Your task to perform on an android device: View the shopping cart on bestbuy.com. Image 0: 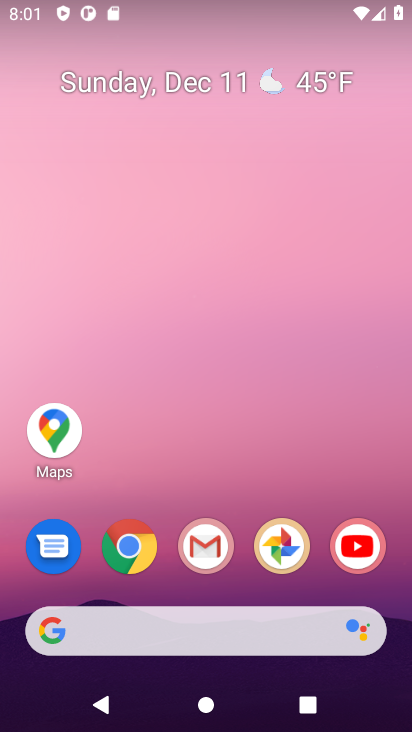
Step 0: click (136, 546)
Your task to perform on an android device: View the shopping cart on bestbuy.com. Image 1: 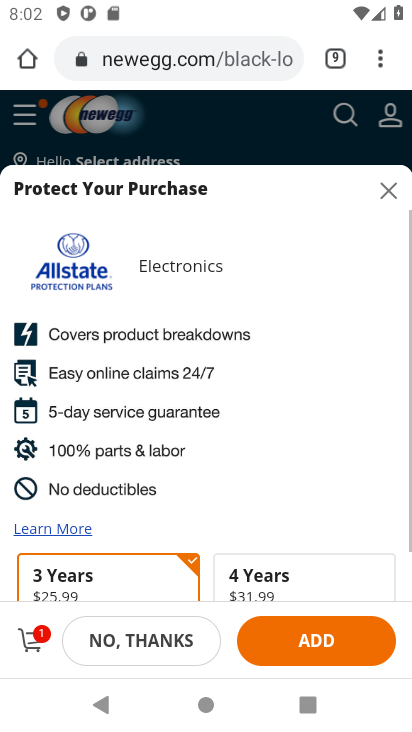
Step 1: click (158, 61)
Your task to perform on an android device: View the shopping cart on bestbuy.com. Image 2: 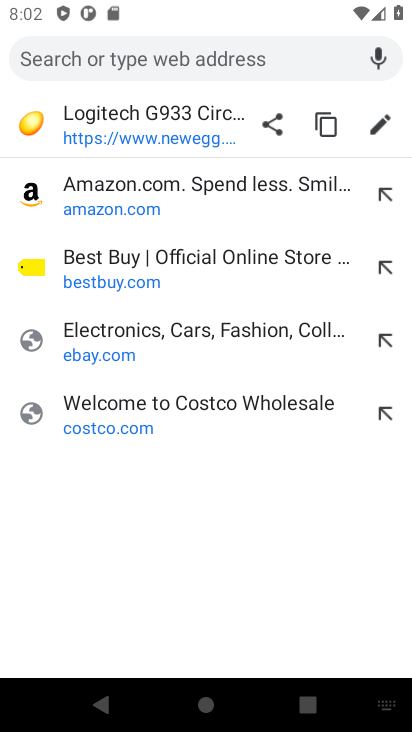
Step 2: click (110, 281)
Your task to perform on an android device: View the shopping cart on bestbuy.com. Image 3: 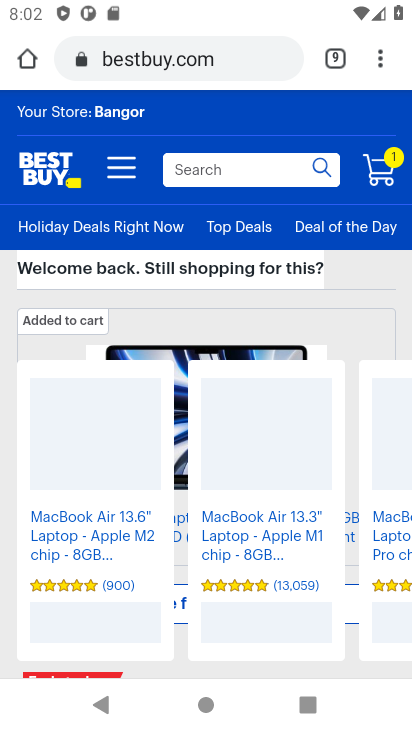
Step 3: click (379, 167)
Your task to perform on an android device: View the shopping cart on bestbuy.com. Image 4: 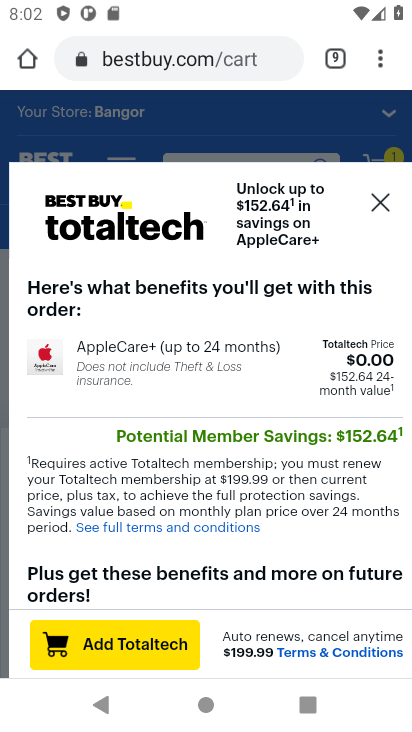
Step 4: click (383, 207)
Your task to perform on an android device: View the shopping cart on bestbuy.com. Image 5: 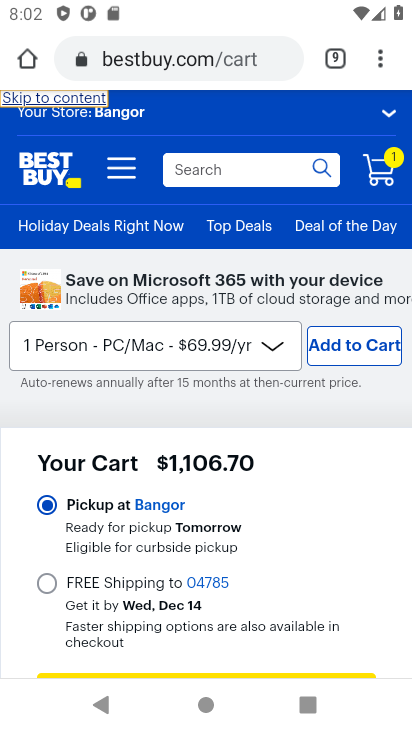
Step 5: task complete